Your task to perform on an android device: Do I have any events this weekend? Image 0: 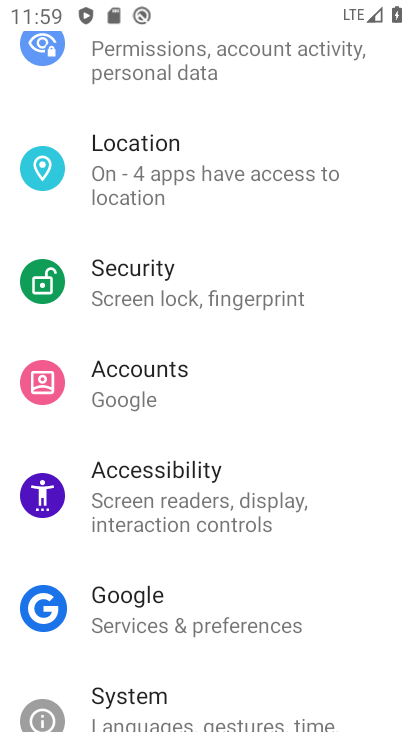
Step 0: press home button
Your task to perform on an android device: Do I have any events this weekend? Image 1: 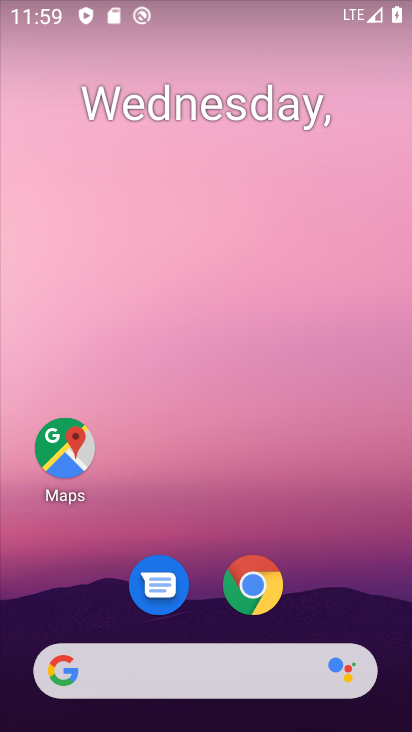
Step 1: drag from (241, 484) to (233, 63)
Your task to perform on an android device: Do I have any events this weekend? Image 2: 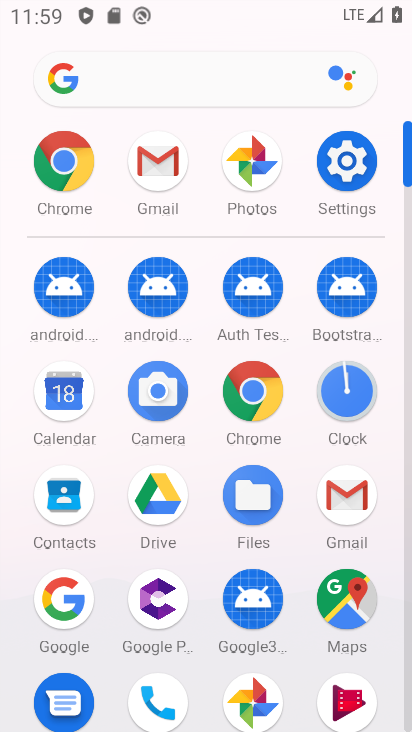
Step 2: click (63, 387)
Your task to perform on an android device: Do I have any events this weekend? Image 3: 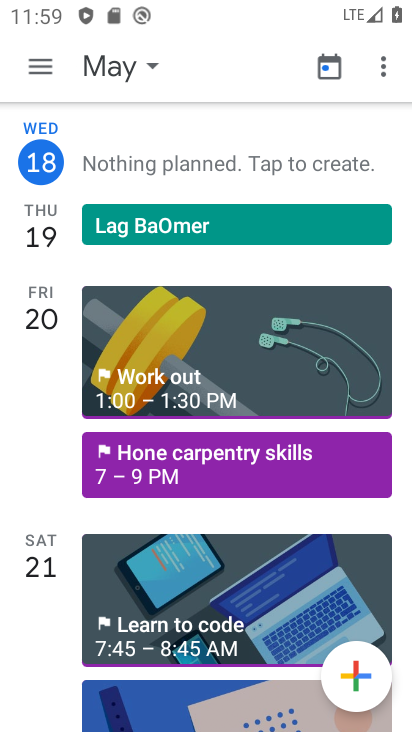
Step 3: task complete